Your task to perform on an android device: check google app version Image 0: 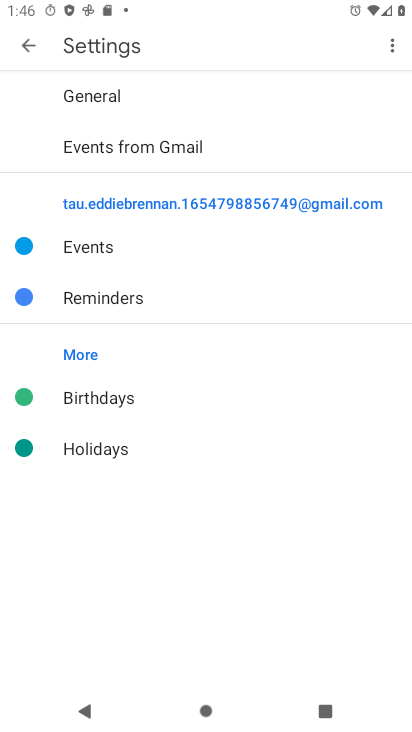
Step 0: press home button
Your task to perform on an android device: check google app version Image 1: 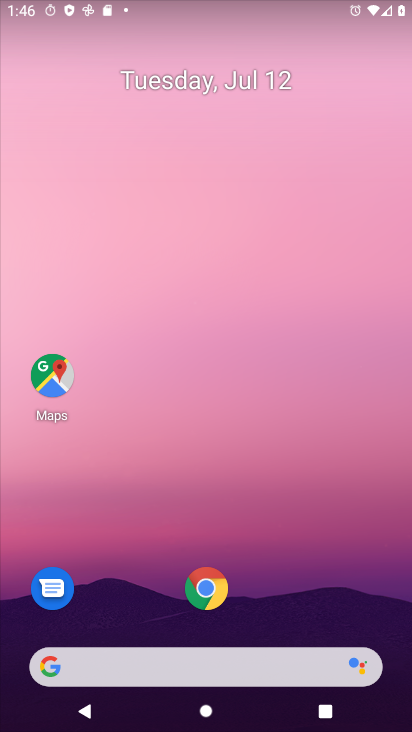
Step 1: drag from (216, 668) to (402, 152)
Your task to perform on an android device: check google app version Image 2: 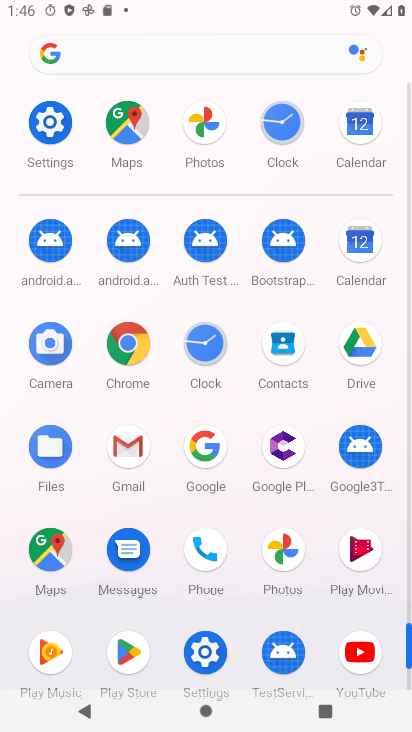
Step 2: click (203, 448)
Your task to perform on an android device: check google app version Image 3: 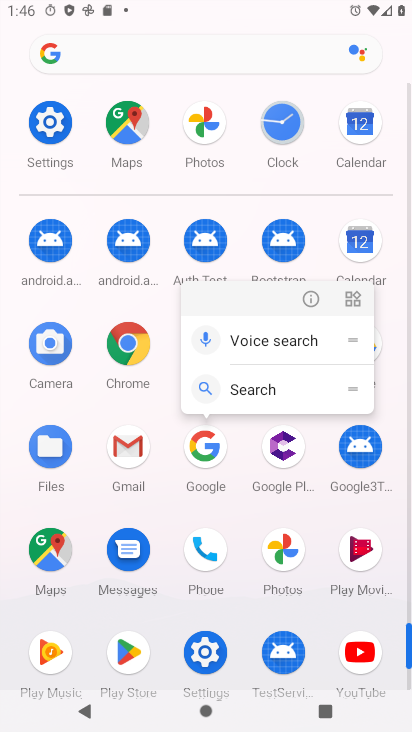
Step 3: click (310, 297)
Your task to perform on an android device: check google app version Image 4: 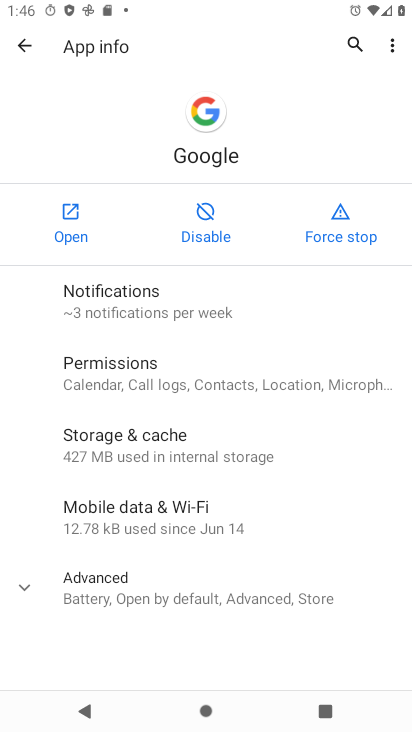
Step 4: drag from (176, 560) to (354, 98)
Your task to perform on an android device: check google app version Image 5: 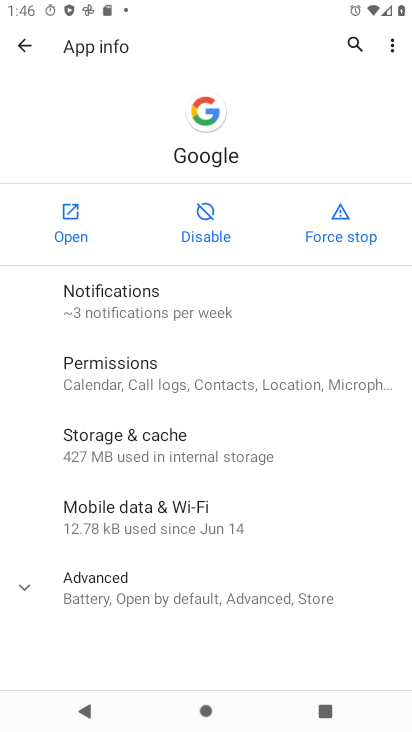
Step 5: click (124, 585)
Your task to perform on an android device: check google app version Image 6: 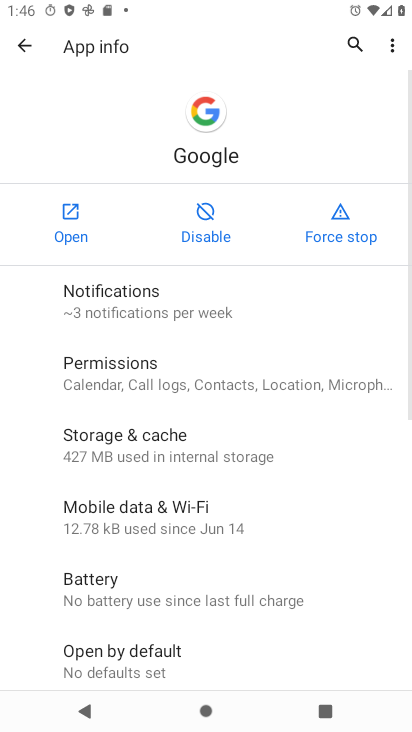
Step 6: task complete